Your task to perform on an android device: toggle data saver in the chrome app Image 0: 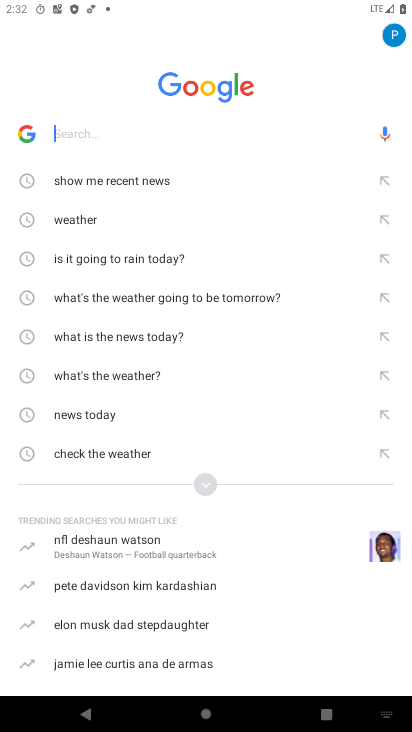
Step 0: press home button
Your task to perform on an android device: toggle data saver in the chrome app Image 1: 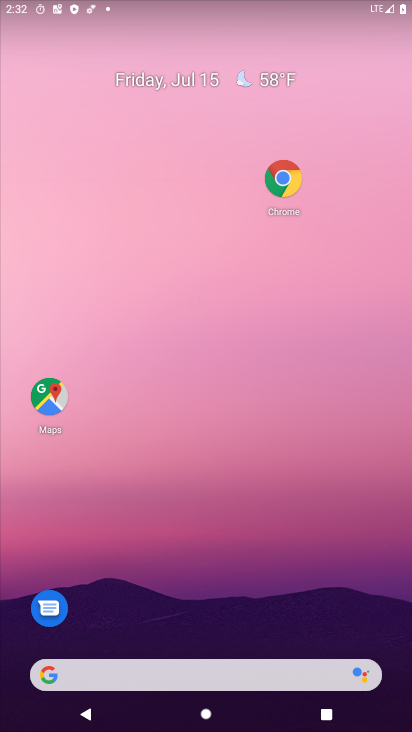
Step 1: drag from (253, 588) to (223, 100)
Your task to perform on an android device: toggle data saver in the chrome app Image 2: 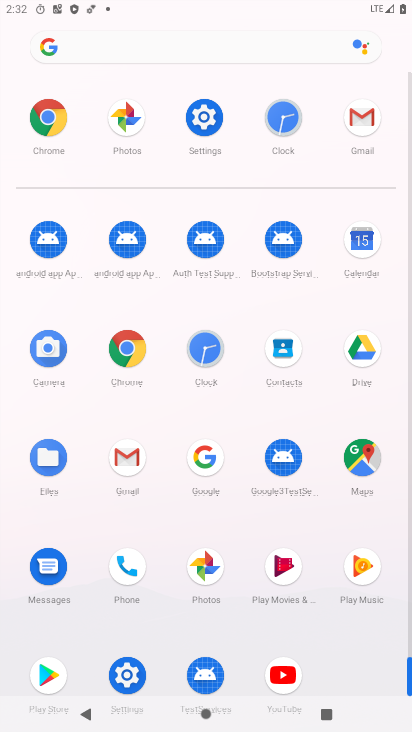
Step 2: click (120, 340)
Your task to perform on an android device: toggle data saver in the chrome app Image 3: 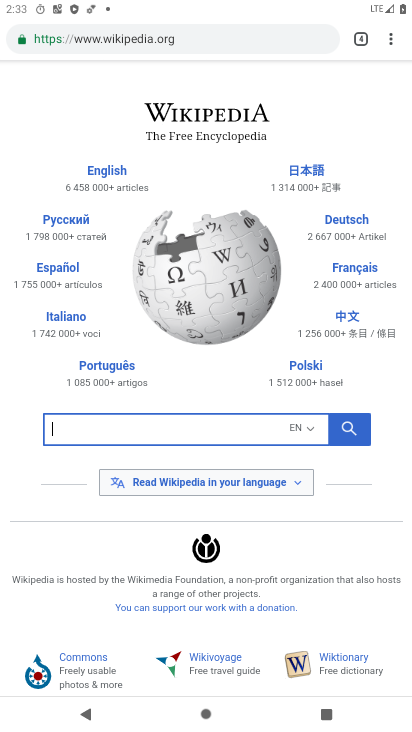
Step 3: click (395, 30)
Your task to perform on an android device: toggle data saver in the chrome app Image 4: 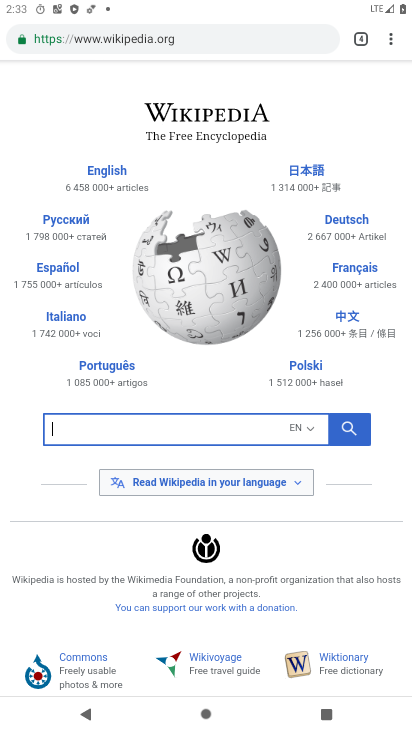
Step 4: drag from (395, 30) to (255, 468)
Your task to perform on an android device: toggle data saver in the chrome app Image 5: 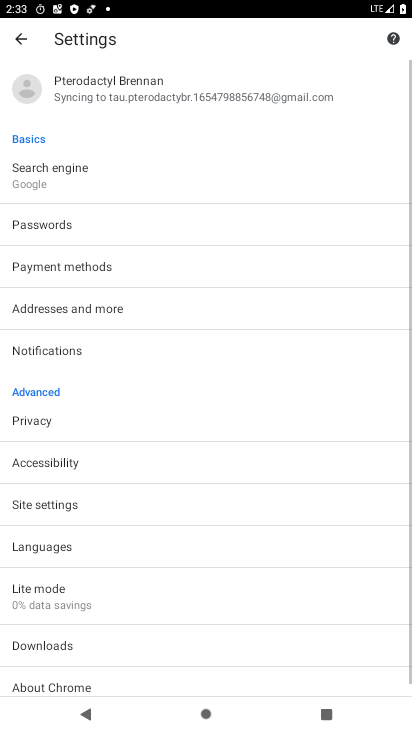
Step 5: drag from (205, 608) to (244, 278)
Your task to perform on an android device: toggle data saver in the chrome app Image 6: 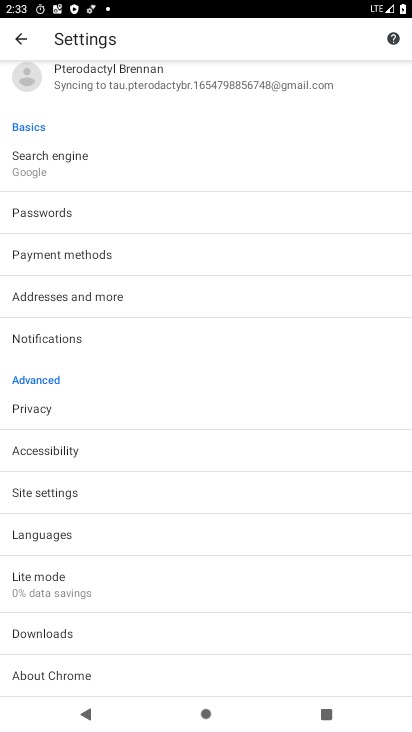
Step 6: click (24, 590)
Your task to perform on an android device: toggle data saver in the chrome app Image 7: 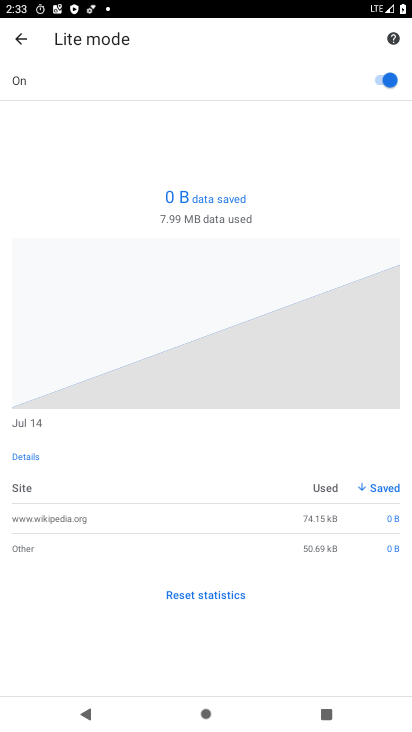
Step 7: task complete